Your task to perform on an android device: Go to Amazon Image 0: 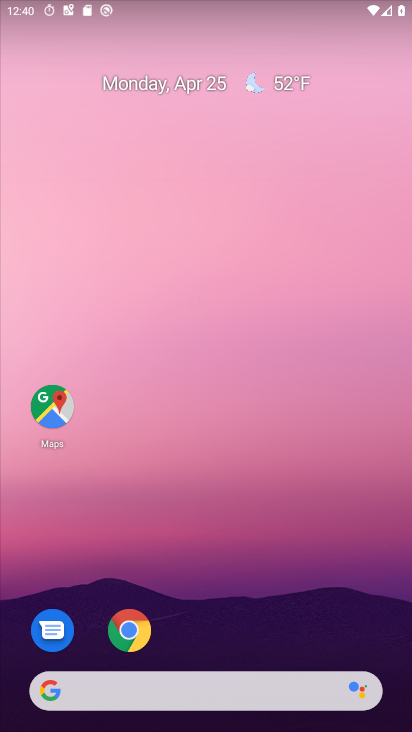
Step 0: drag from (187, 624) to (210, 209)
Your task to perform on an android device: Go to Amazon Image 1: 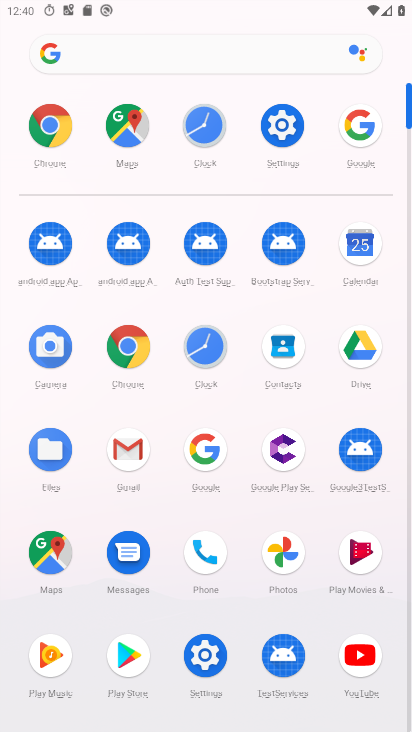
Step 1: click (132, 344)
Your task to perform on an android device: Go to Amazon Image 2: 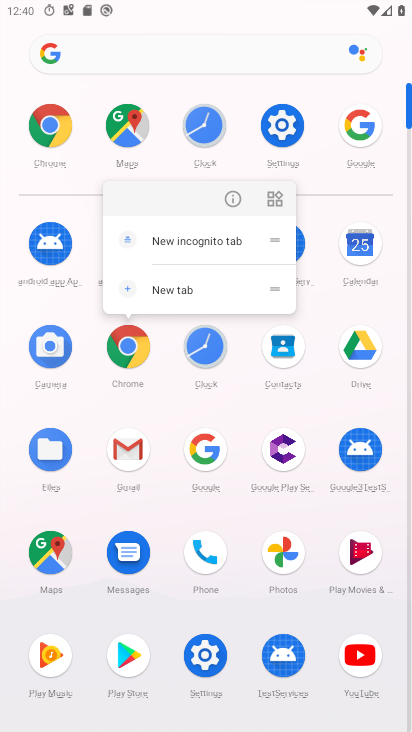
Step 2: click (226, 211)
Your task to perform on an android device: Go to Amazon Image 3: 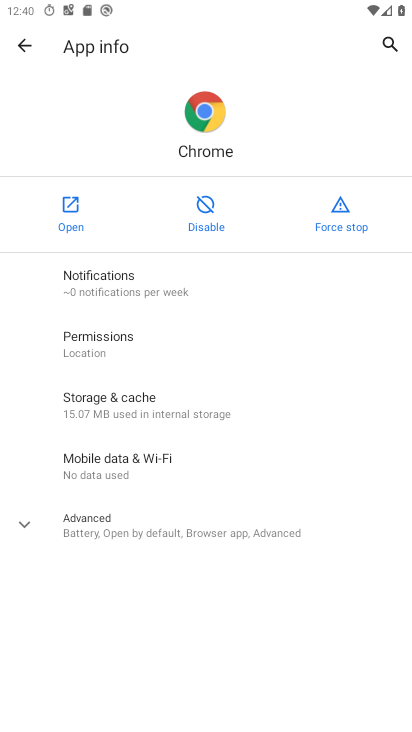
Step 3: click (72, 216)
Your task to perform on an android device: Go to Amazon Image 4: 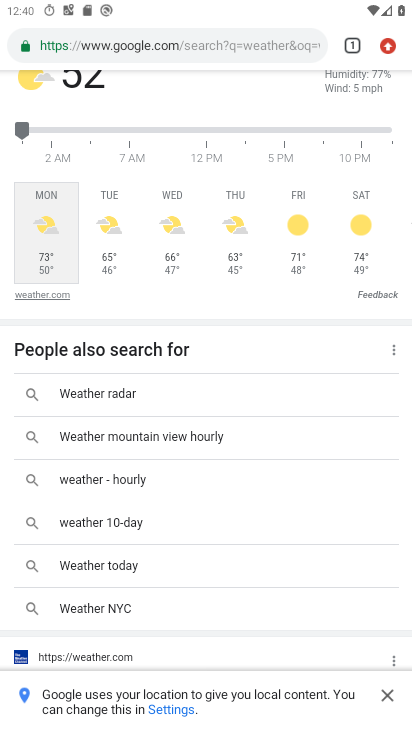
Step 4: drag from (175, 136) to (192, 488)
Your task to perform on an android device: Go to Amazon Image 5: 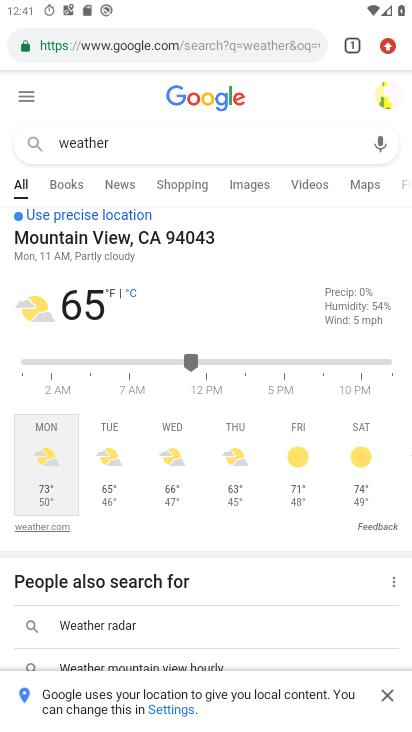
Step 5: click (136, 38)
Your task to perform on an android device: Go to Amazon Image 6: 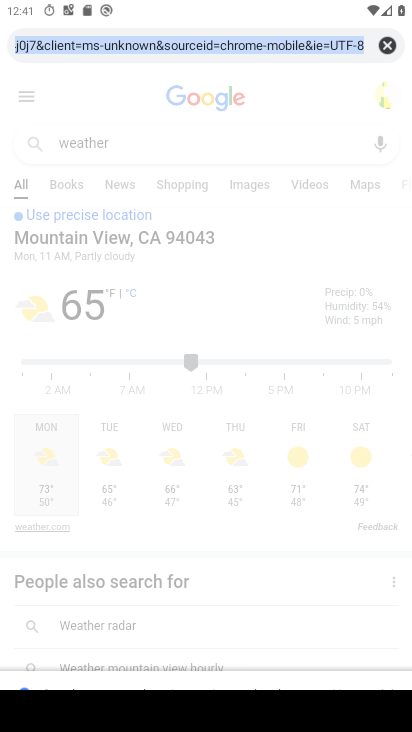
Step 6: click (377, 48)
Your task to perform on an android device: Go to Amazon Image 7: 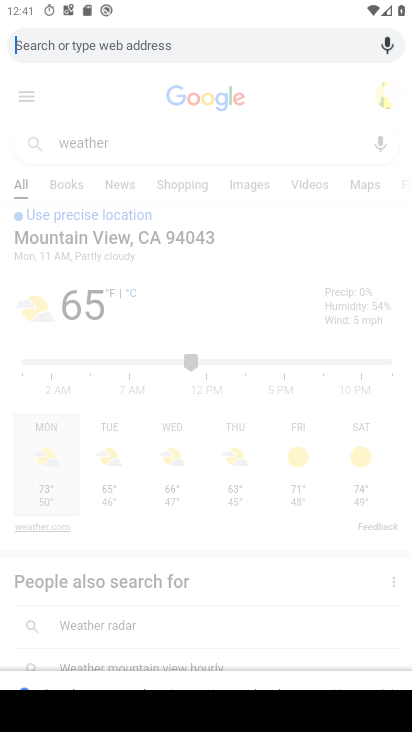
Step 7: click (251, 252)
Your task to perform on an android device: Go to Amazon Image 8: 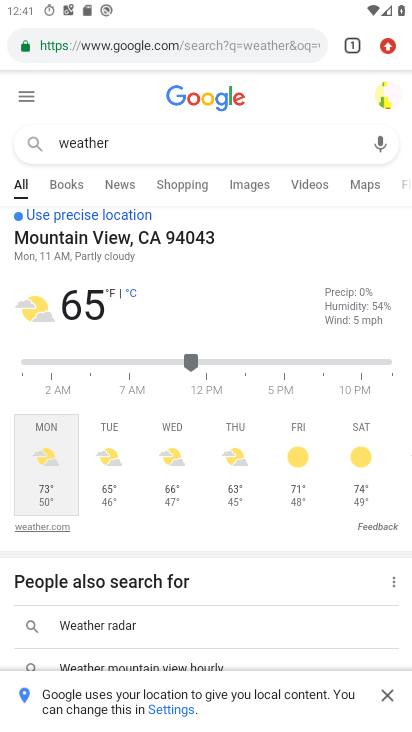
Step 8: click (345, 52)
Your task to perform on an android device: Go to Amazon Image 9: 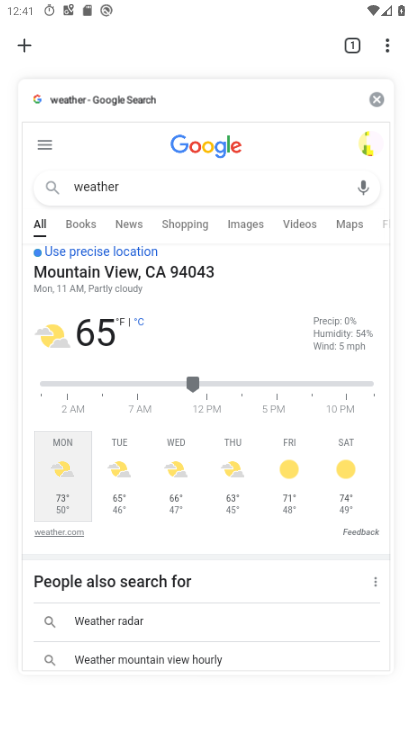
Step 9: click (35, 58)
Your task to perform on an android device: Go to Amazon Image 10: 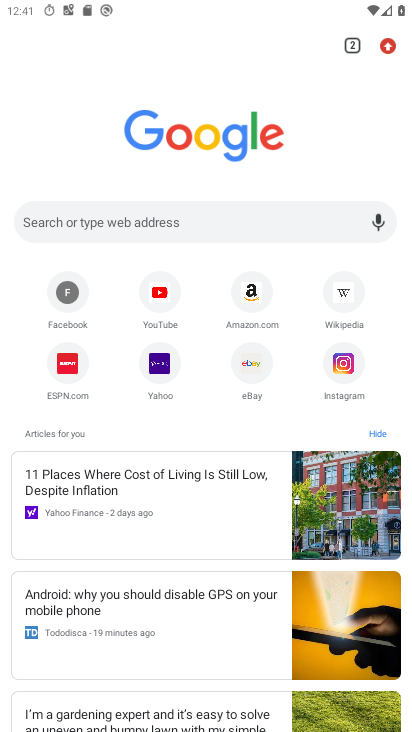
Step 10: click (252, 288)
Your task to perform on an android device: Go to Amazon Image 11: 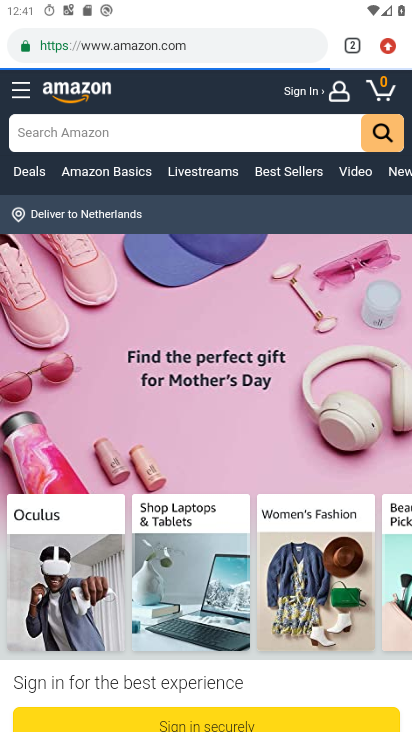
Step 11: task complete